Your task to perform on an android device: Go to internet settings Image 0: 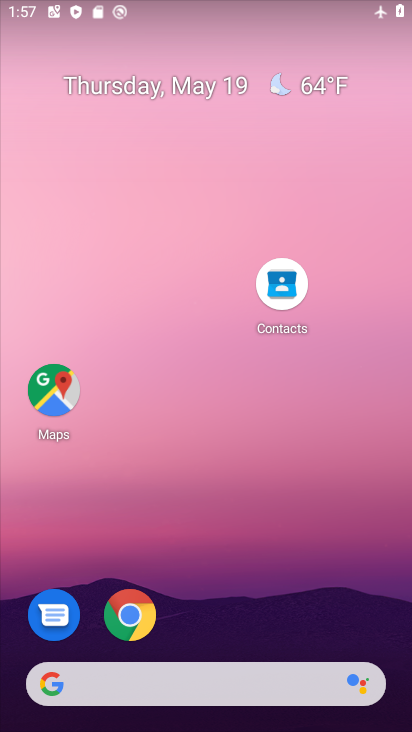
Step 0: drag from (233, 633) to (234, 266)
Your task to perform on an android device: Go to internet settings Image 1: 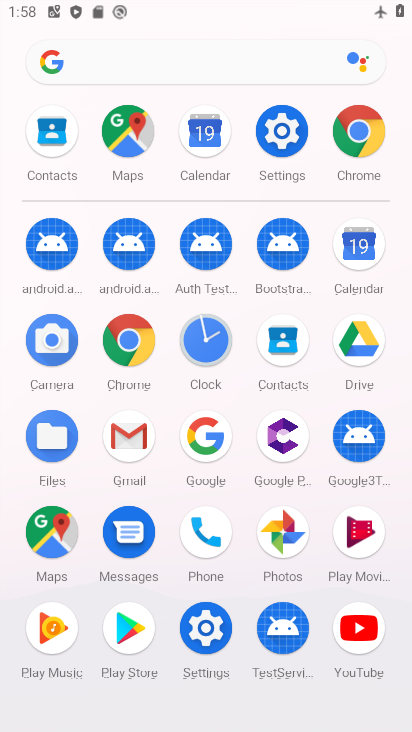
Step 1: click (278, 150)
Your task to perform on an android device: Go to internet settings Image 2: 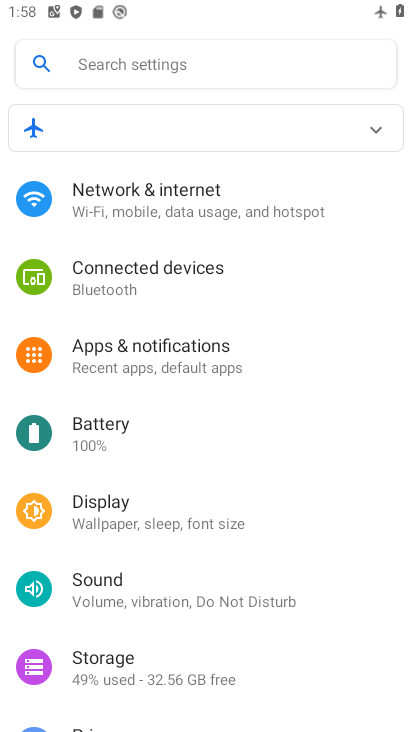
Step 2: click (206, 208)
Your task to perform on an android device: Go to internet settings Image 3: 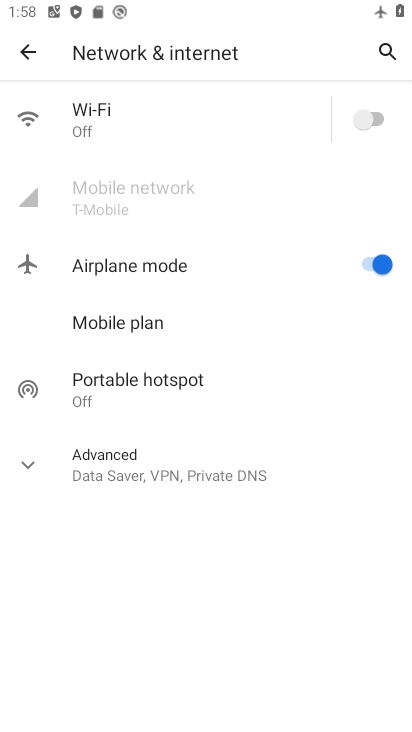
Step 3: click (200, 188)
Your task to perform on an android device: Go to internet settings Image 4: 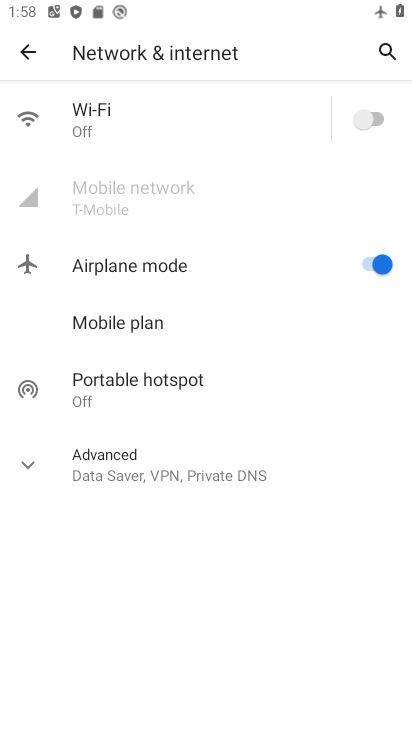
Step 4: task complete